Your task to perform on an android device: find snoozed emails in the gmail app Image 0: 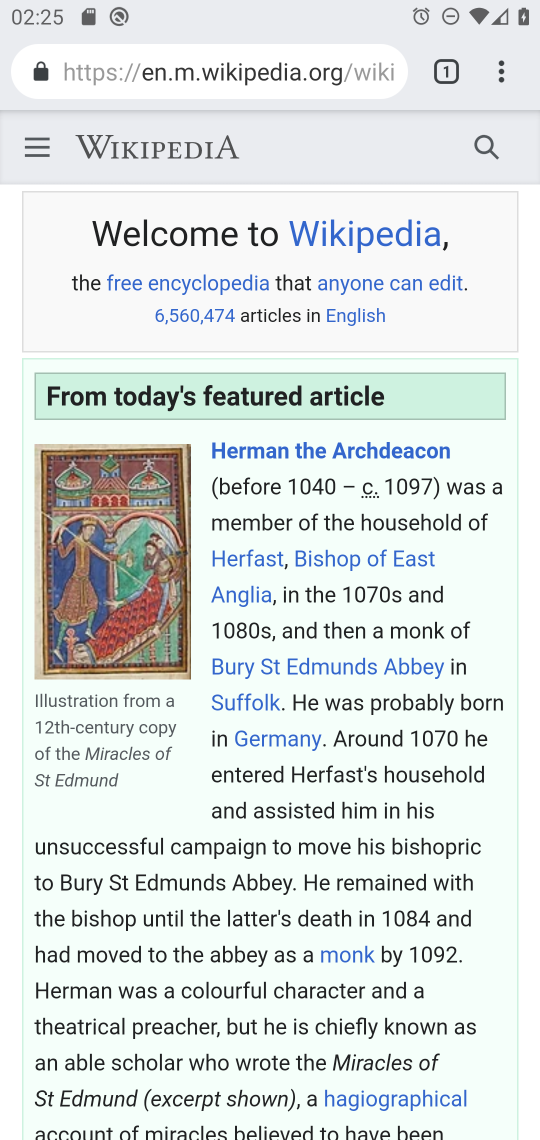
Step 0: press home button
Your task to perform on an android device: find snoozed emails in the gmail app Image 1: 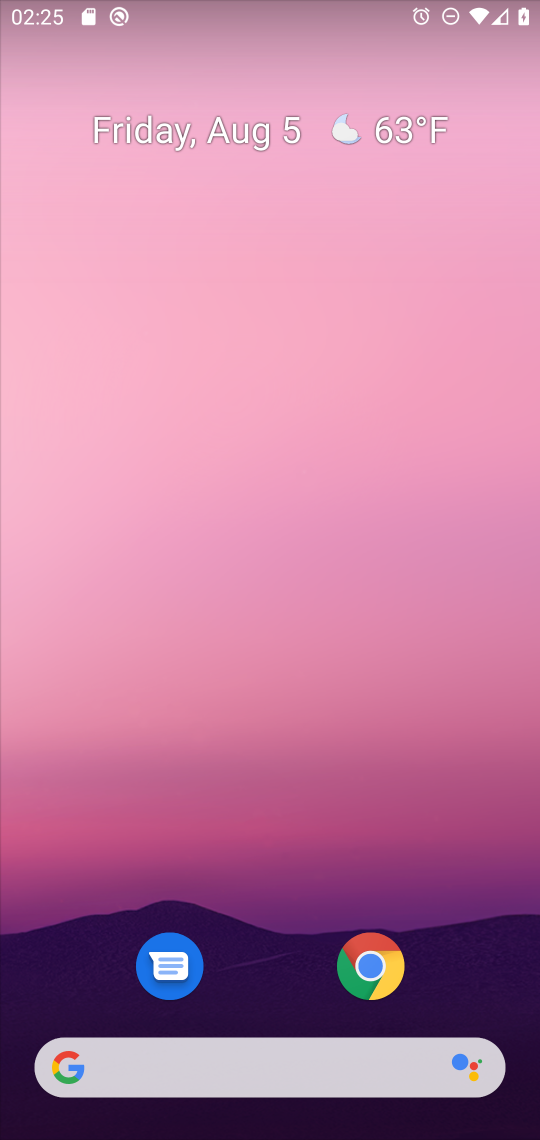
Step 1: drag from (302, 861) to (405, 31)
Your task to perform on an android device: find snoozed emails in the gmail app Image 2: 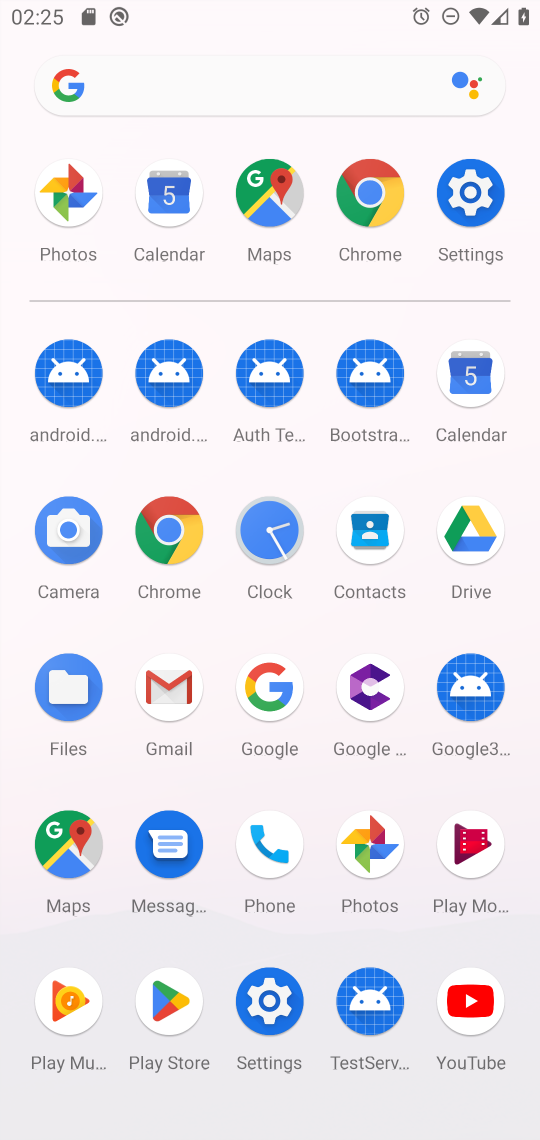
Step 2: click (175, 682)
Your task to perform on an android device: find snoozed emails in the gmail app Image 3: 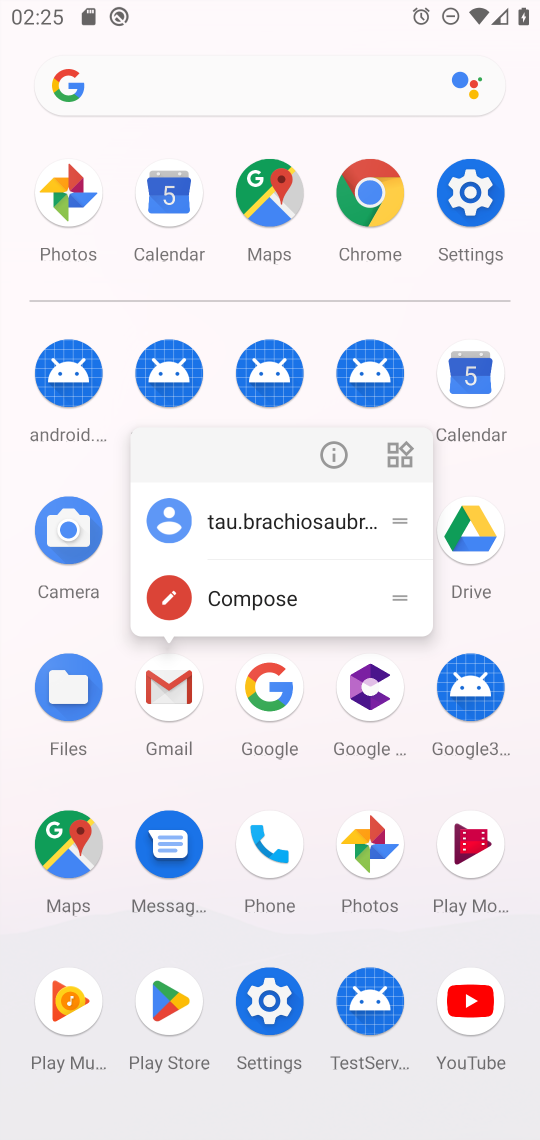
Step 3: click (175, 682)
Your task to perform on an android device: find snoozed emails in the gmail app Image 4: 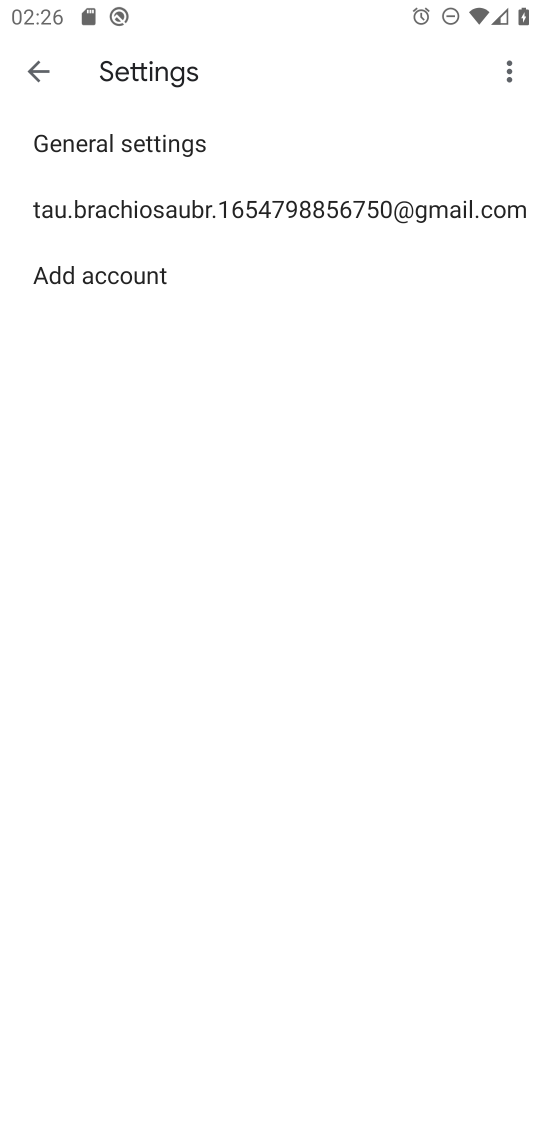
Step 4: click (36, 61)
Your task to perform on an android device: find snoozed emails in the gmail app Image 5: 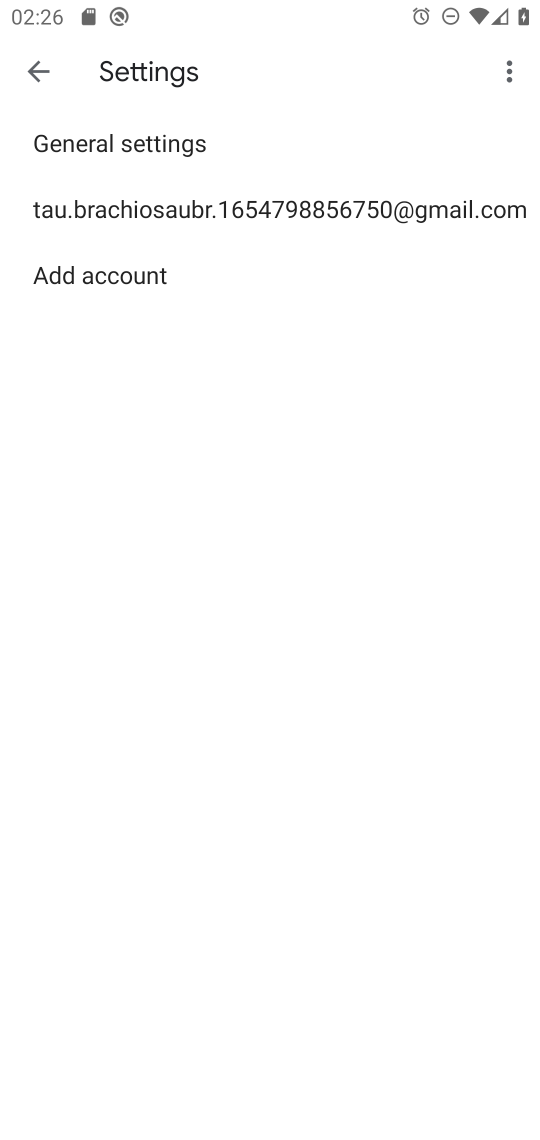
Step 5: click (36, 61)
Your task to perform on an android device: find snoozed emails in the gmail app Image 6: 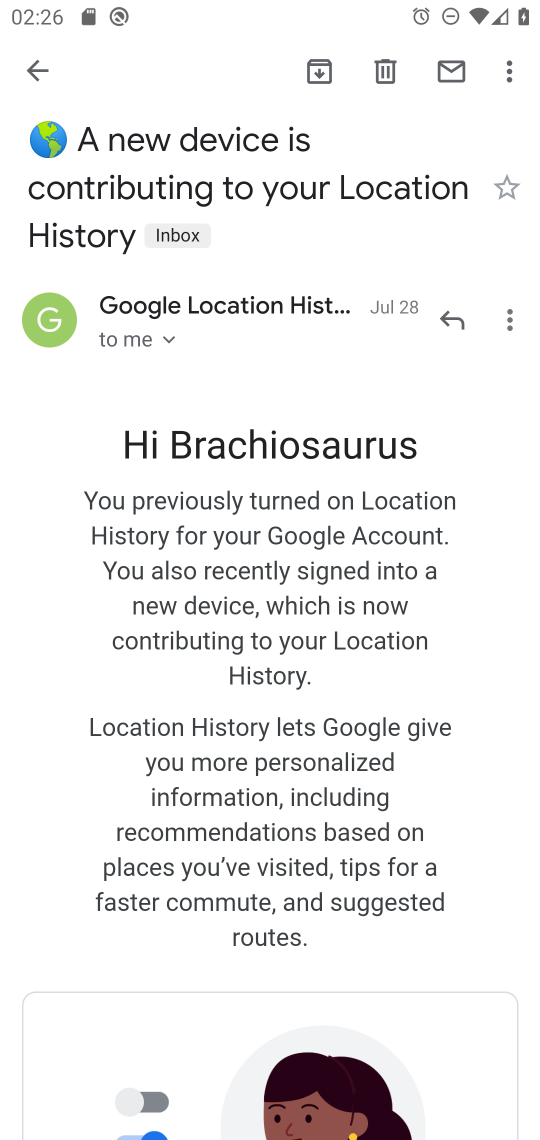
Step 6: click (36, 61)
Your task to perform on an android device: find snoozed emails in the gmail app Image 7: 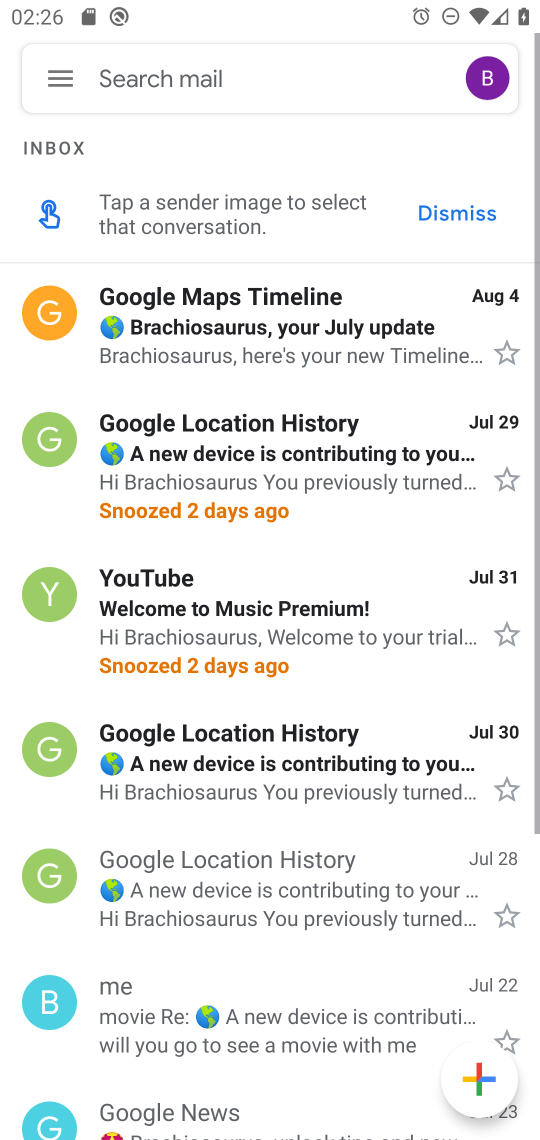
Step 7: click (67, 74)
Your task to perform on an android device: find snoozed emails in the gmail app Image 8: 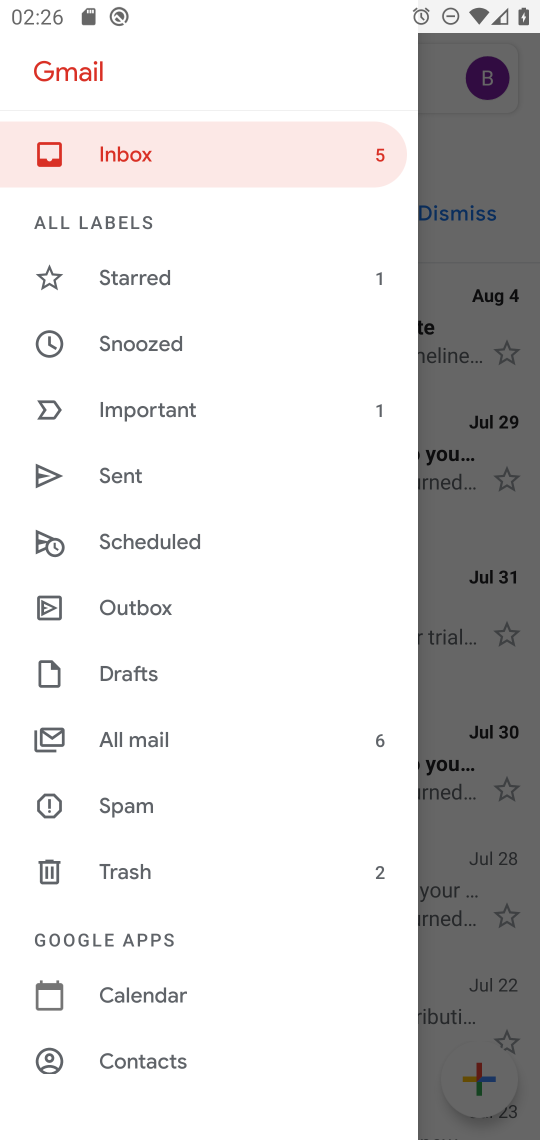
Step 8: click (156, 342)
Your task to perform on an android device: find snoozed emails in the gmail app Image 9: 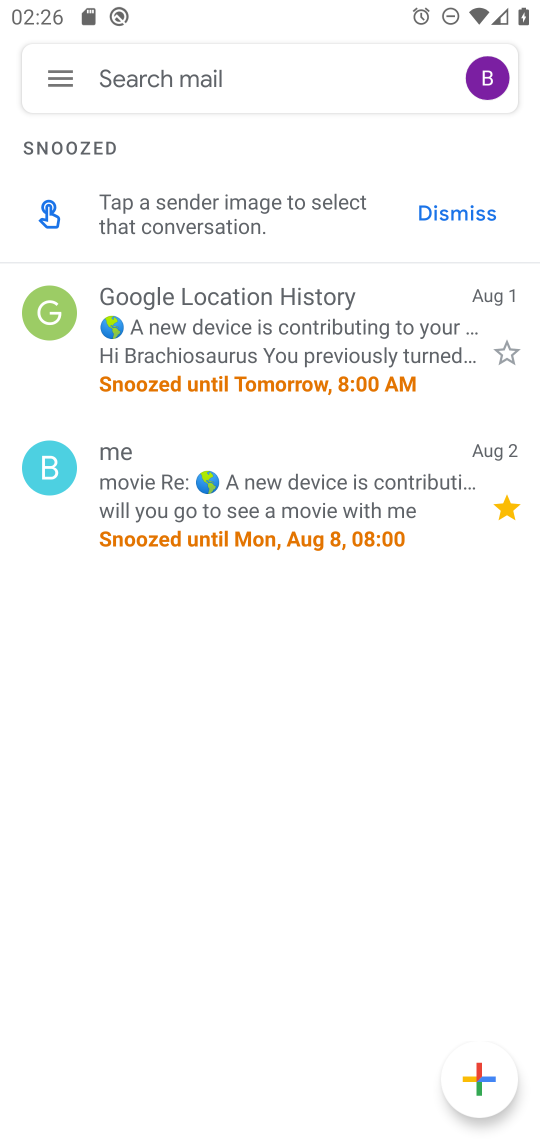
Step 9: task complete